Your task to perform on an android device: change the clock display to digital Image 0: 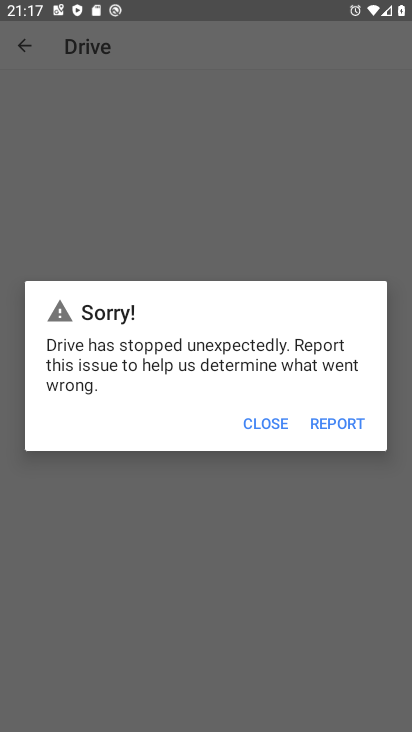
Step 0: press home button
Your task to perform on an android device: change the clock display to digital Image 1: 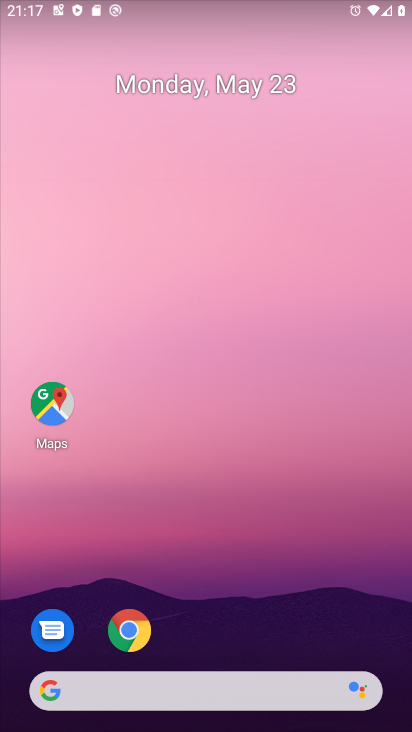
Step 1: drag from (222, 649) to (216, 324)
Your task to perform on an android device: change the clock display to digital Image 2: 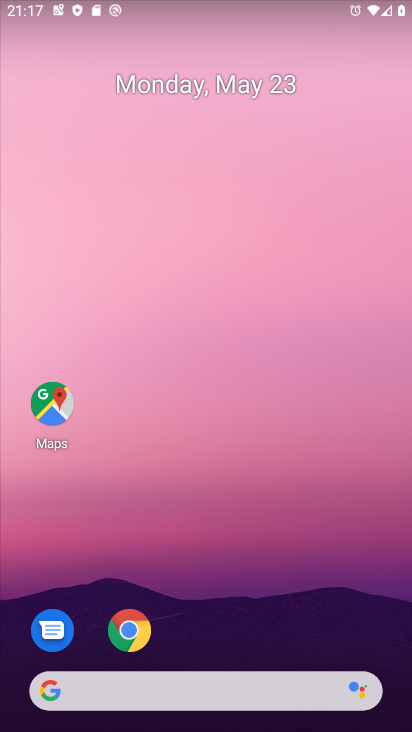
Step 2: drag from (147, 668) to (117, 267)
Your task to perform on an android device: change the clock display to digital Image 3: 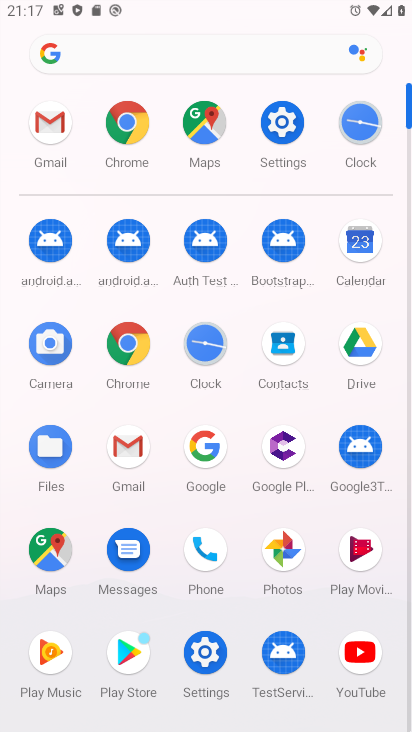
Step 3: click (357, 124)
Your task to perform on an android device: change the clock display to digital Image 4: 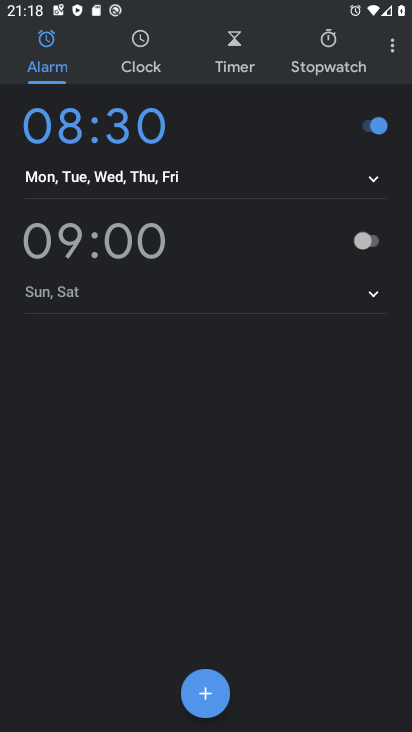
Step 4: click (389, 49)
Your task to perform on an android device: change the clock display to digital Image 5: 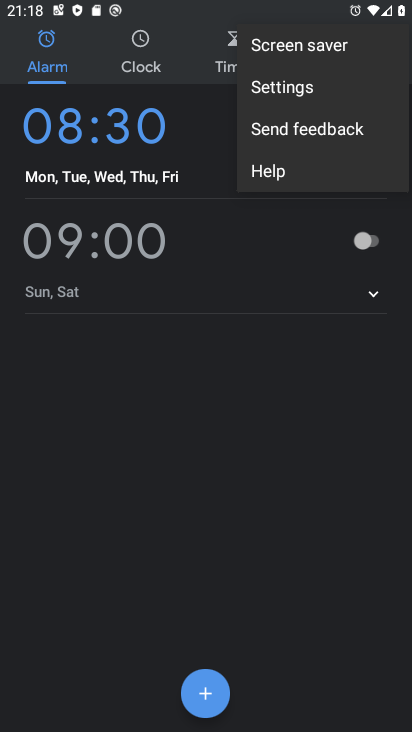
Step 5: click (293, 94)
Your task to perform on an android device: change the clock display to digital Image 6: 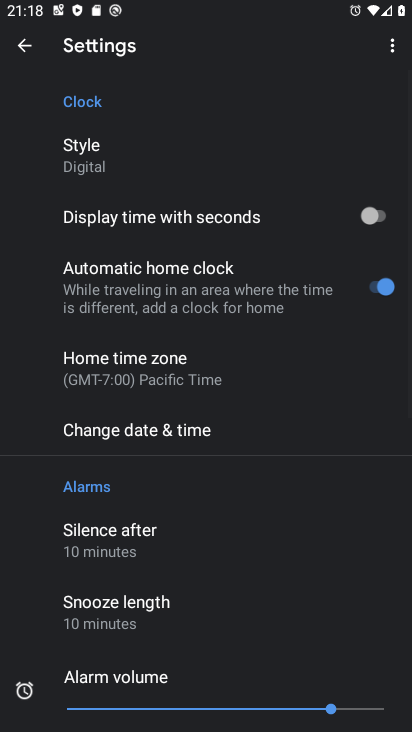
Step 6: click (84, 159)
Your task to perform on an android device: change the clock display to digital Image 7: 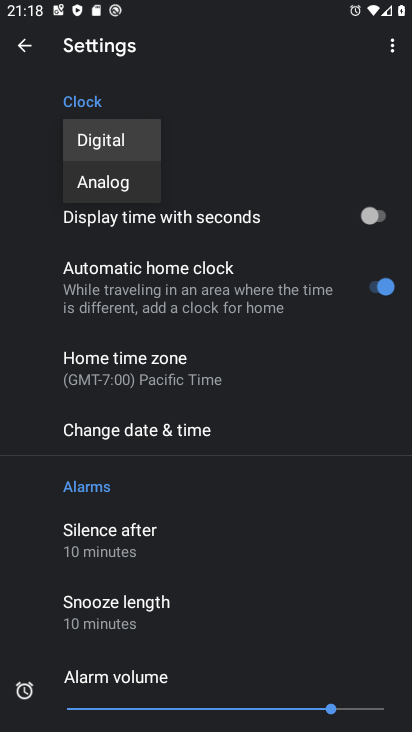
Step 7: click (84, 153)
Your task to perform on an android device: change the clock display to digital Image 8: 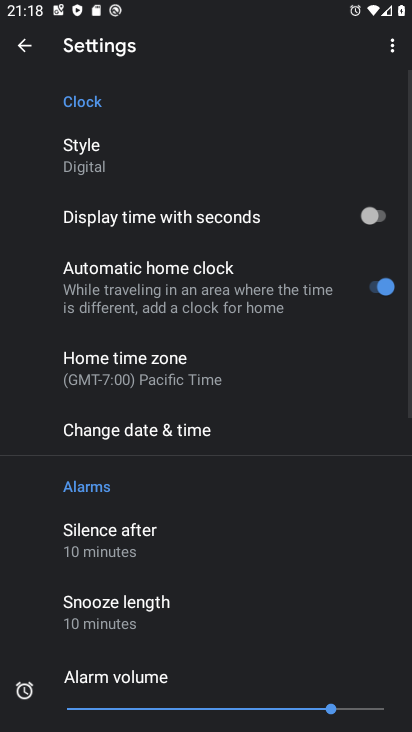
Step 8: task complete